Your task to perform on an android device: open app "Upside-Cash back on gas & food" (install if not already installed) Image 0: 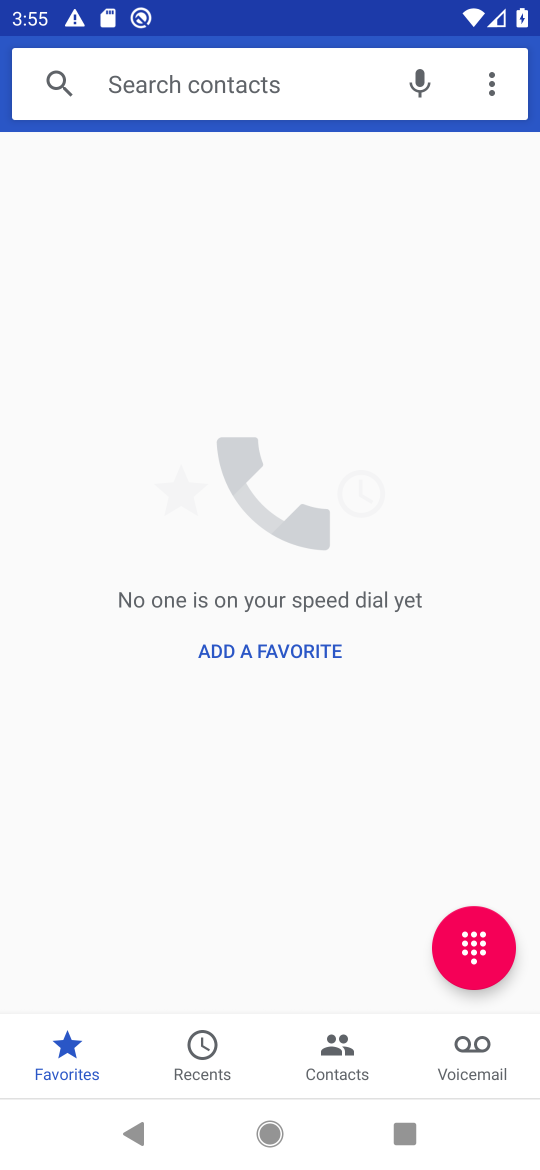
Step 0: press back button
Your task to perform on an android device: open app "Upside-Cash back on gas & food" (install if not already installed) Image 1: 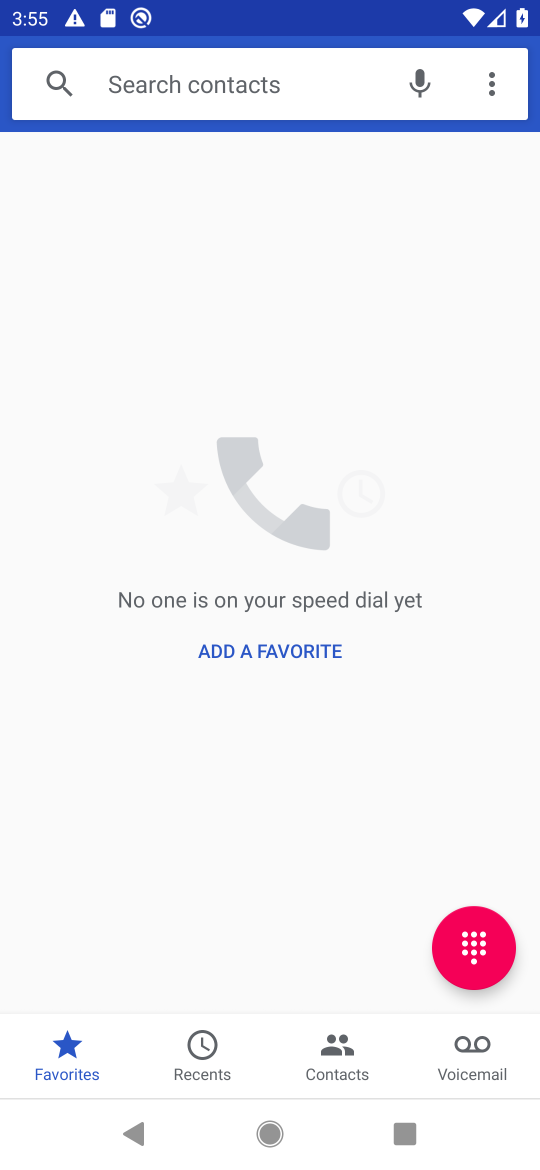
Step 1: press back button
Your task to perform on an android device: open app "Upside-Cash back on gas & food" (install if not already installed) Image 2: 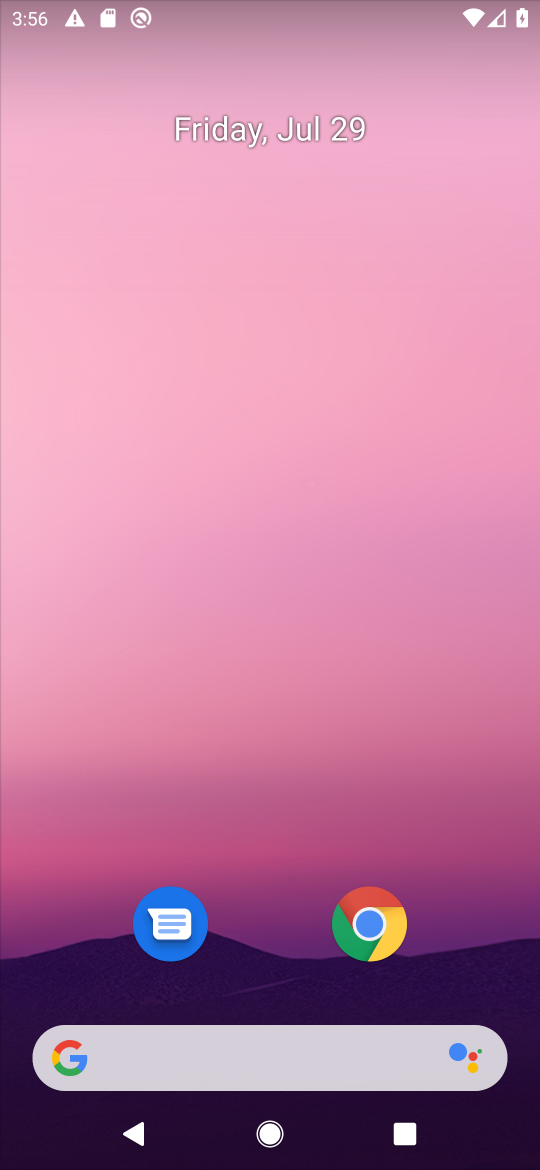
Step 2: press home button
Your task to perform on an android device: open app "Upside-Cash back on gas & food" (install if not already installed) Image 3: 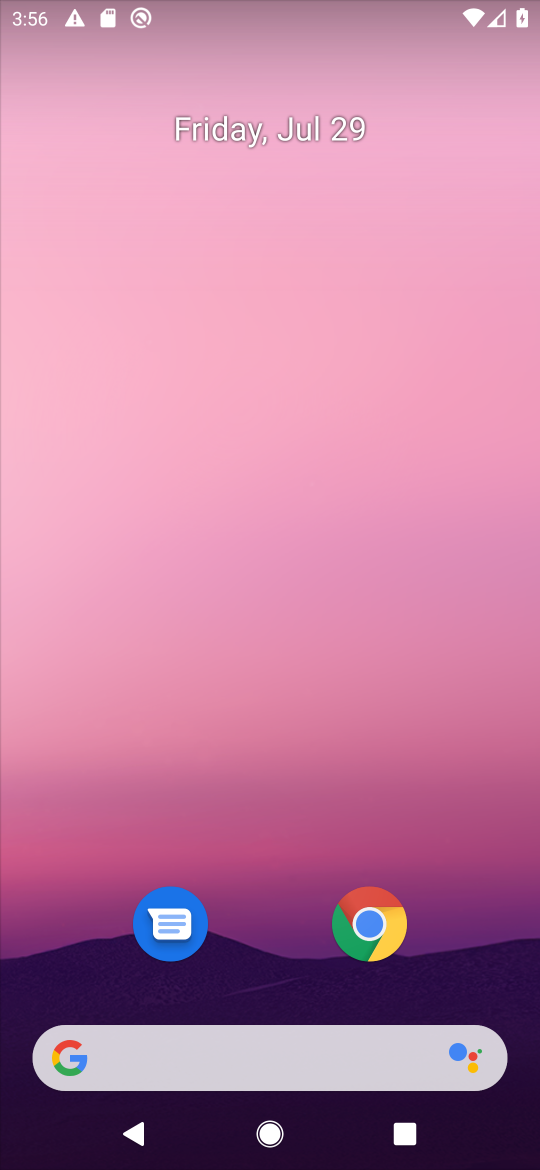
Step 3: drag from (273, 547) to (233, 106)
Your task to perform on an android device: open app "Upside-Cash back on gas & food" (install if not already installed) Image 4: 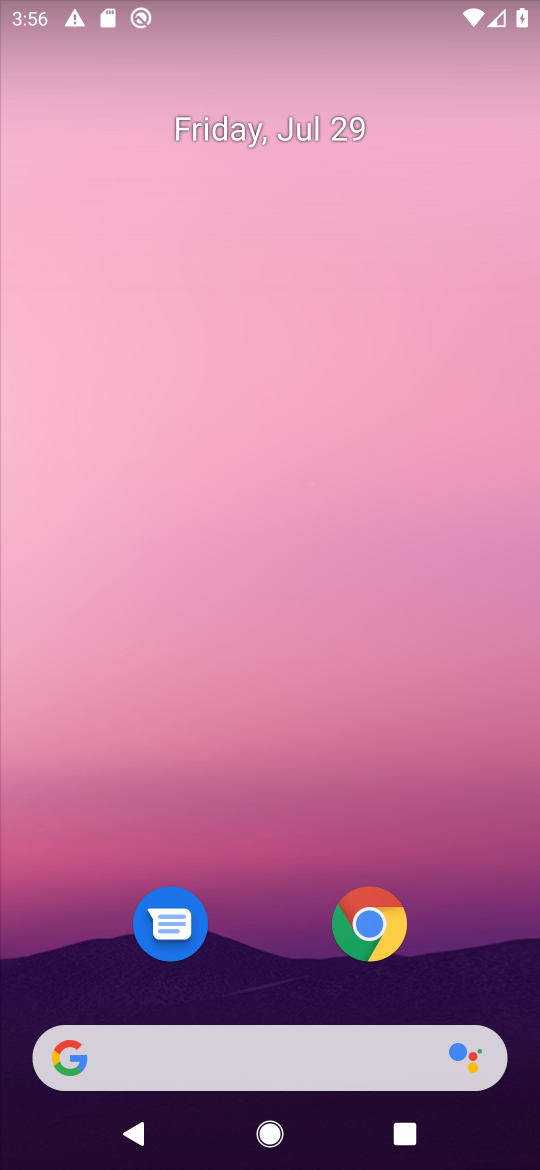
Step 4: drag from (236, 304) to (274, 211)
Your task to perform on an android device: open app "Upside-Cash back on gas & food" (install if not already installed) Image 5: 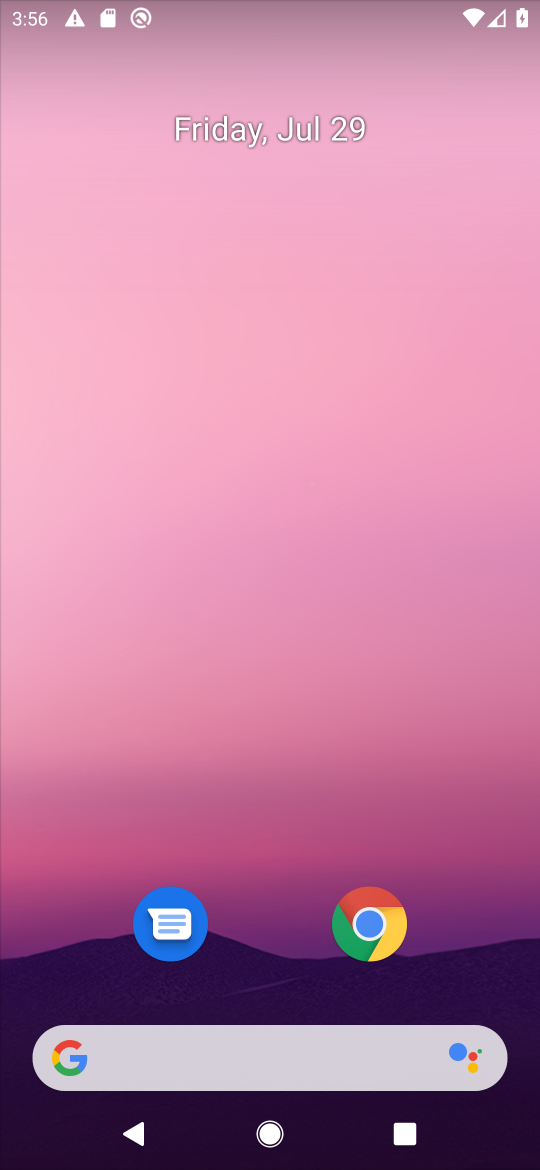
Step 5: drag from (199, 106) to (238, 62)
Your task to perform on an android device: open app "Upside-Cash back on gas & food" (install if not already installed) Image 6: 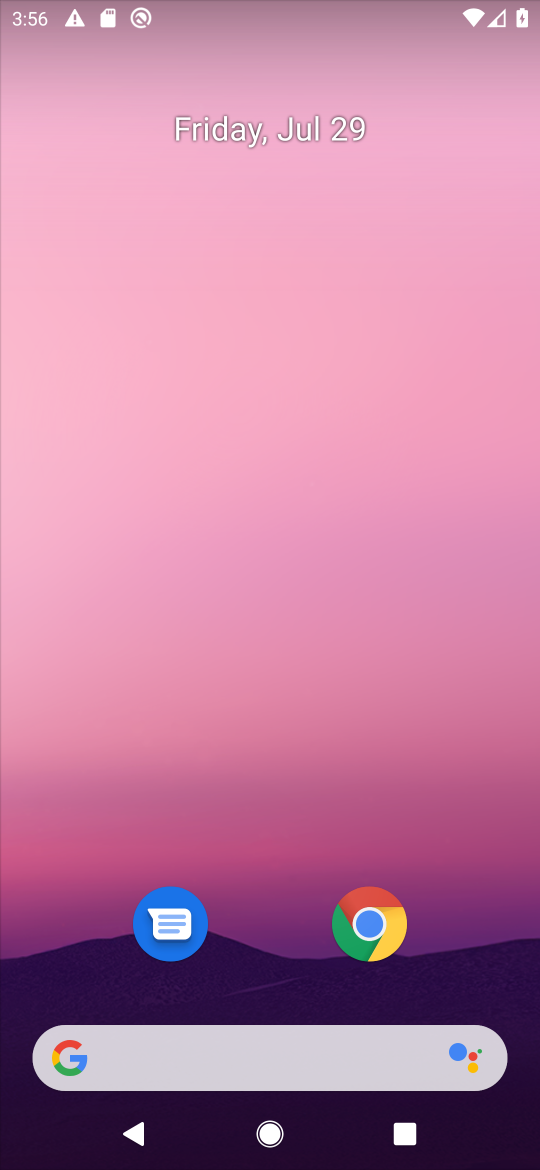
Step 6: drag from (186, 427) to (187, 201)
Your task to perform on an android device: open app "Upside-Cash back on gas & food" (install if not already installed) Image 7: 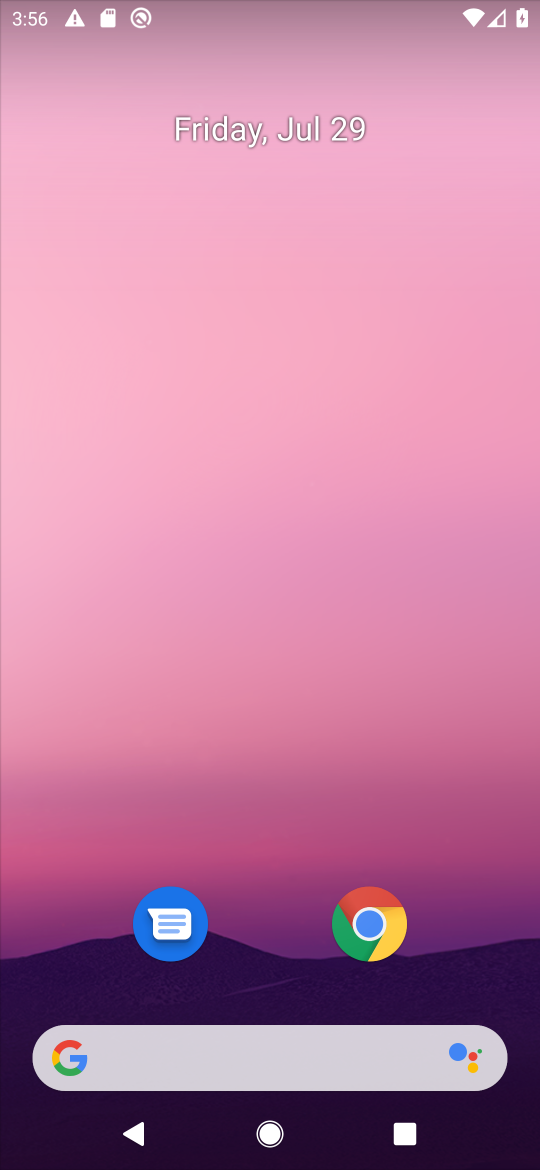
Step 7: click (114, 104)
Your task to perform on an android device: open app "Upside-Cash back on gas & food" (install if not already installed) Image 8: 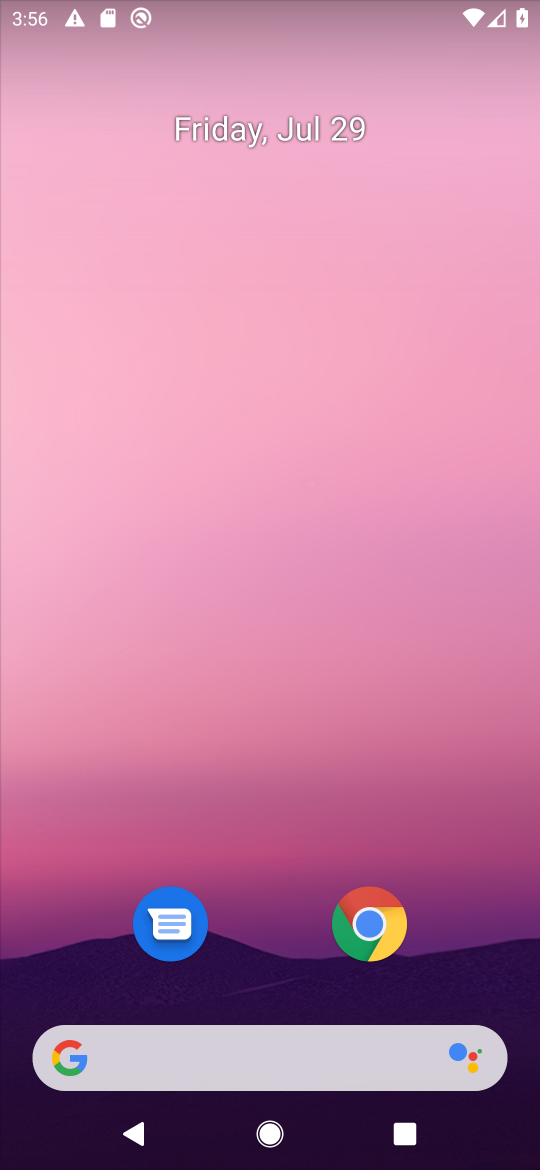
Step 8: drag from (235, 435) to (222, 274)
Your task to perform on an android device: open app "Upside-Cash back on gas & food" (install if not already installed) Image 9: 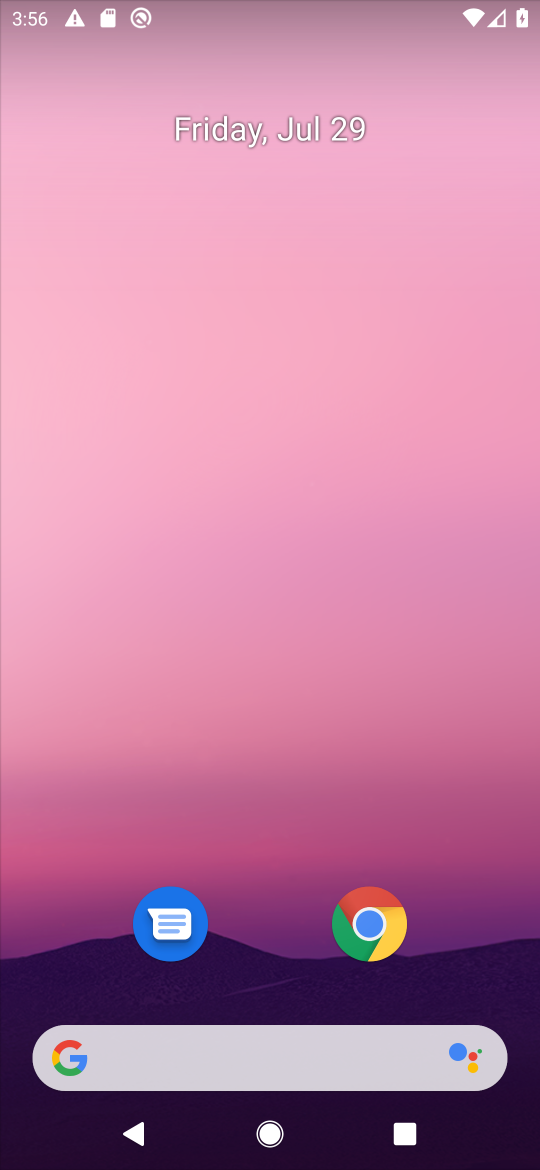
Step 9: drag from (316, 815) to (267, 161)
Your task to perform on an android device: open app "Upside-Cash back on gas & food" (install if not already installed) Image 10: 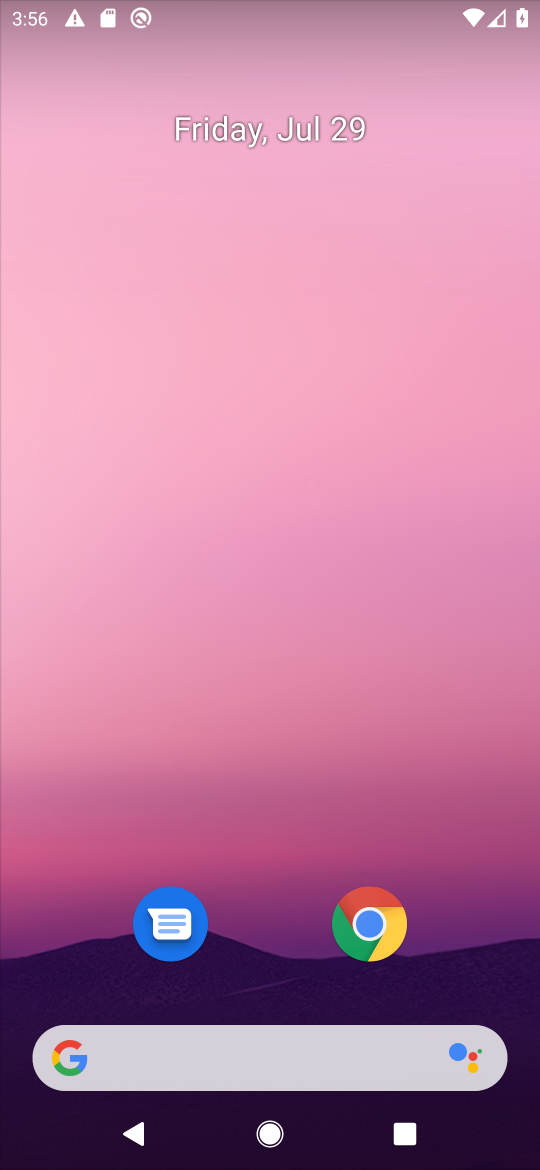
Step 10: drag from (351, 786) to (250, 17)
Your task to perform on an android device: open app "Upside-Cash back on gas & food" (install if not already installed) Image 11: 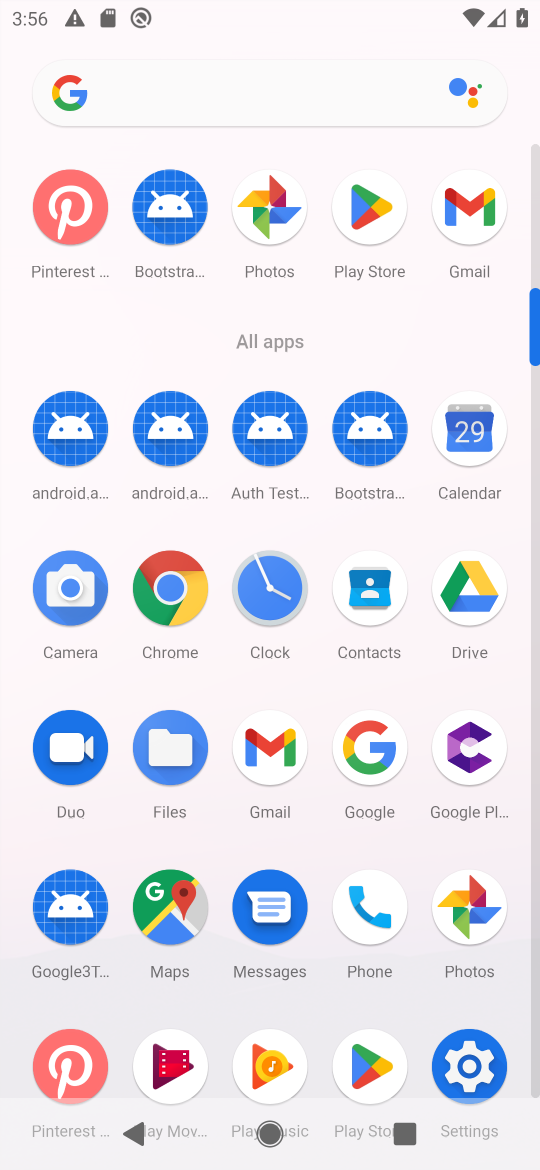
Step 11: click (360, 228)
Your task to perform on an android device: open app "Upside-Cash back on gas & food" (install if not already installed) Image 12: 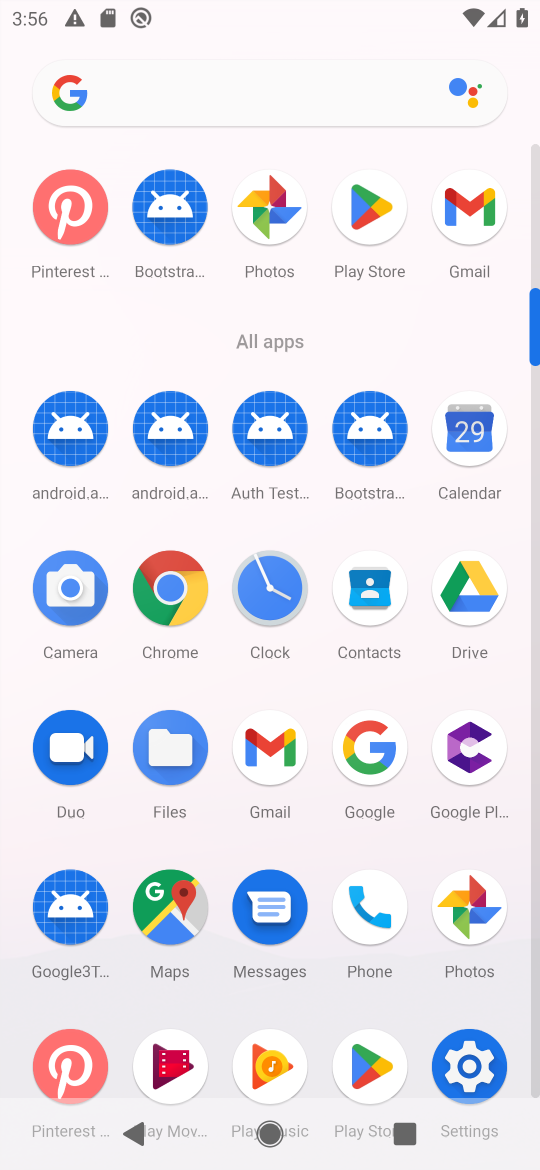
Step 12: click (360, 224)
Your task to perform on an android device: open app "Upside-Cash back on gas & food" (install if not already installed) Image 13: 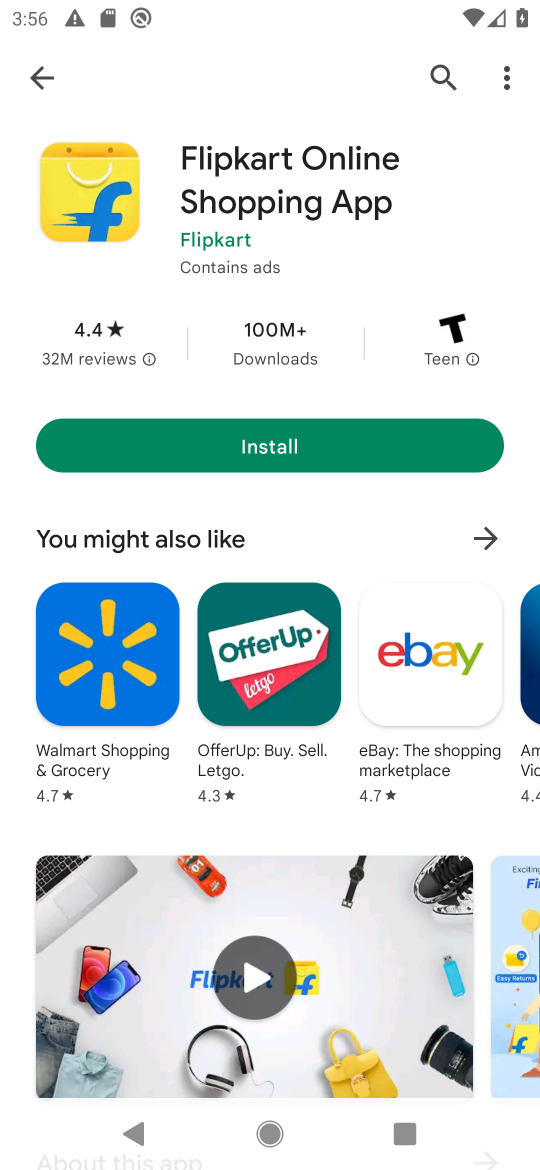
Step 13: click (38, 71)
Your task to perform on an android device: open app "Upside-Cash back on gas & food" (install if not already installed) Image 14: 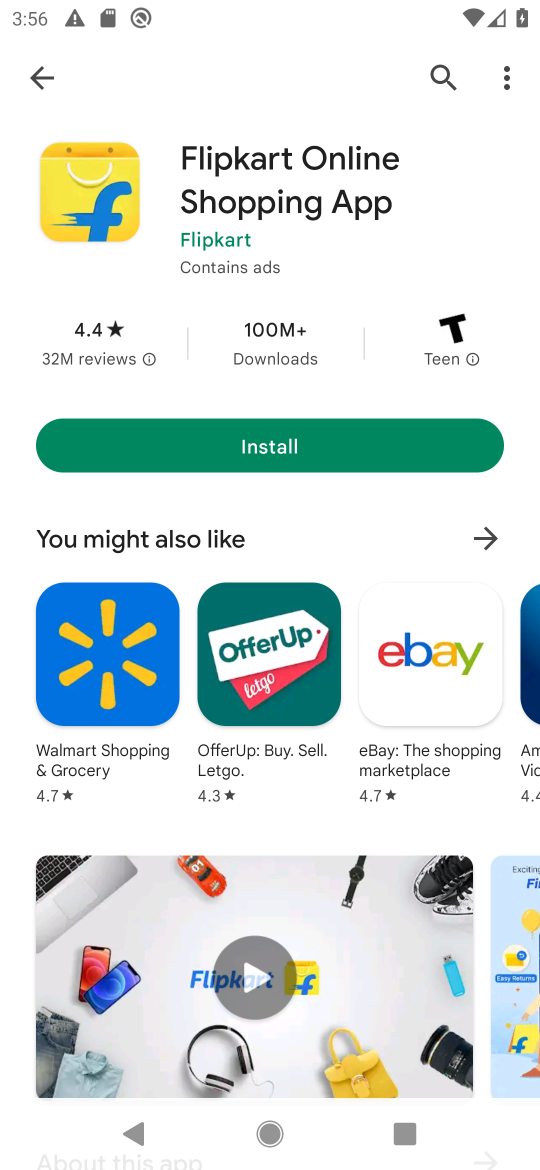
Step 14: click (44, 74)
Your task to perform on an android device: open app "Upside-Cash back on gas & food" (install if not already installed) Image 15: 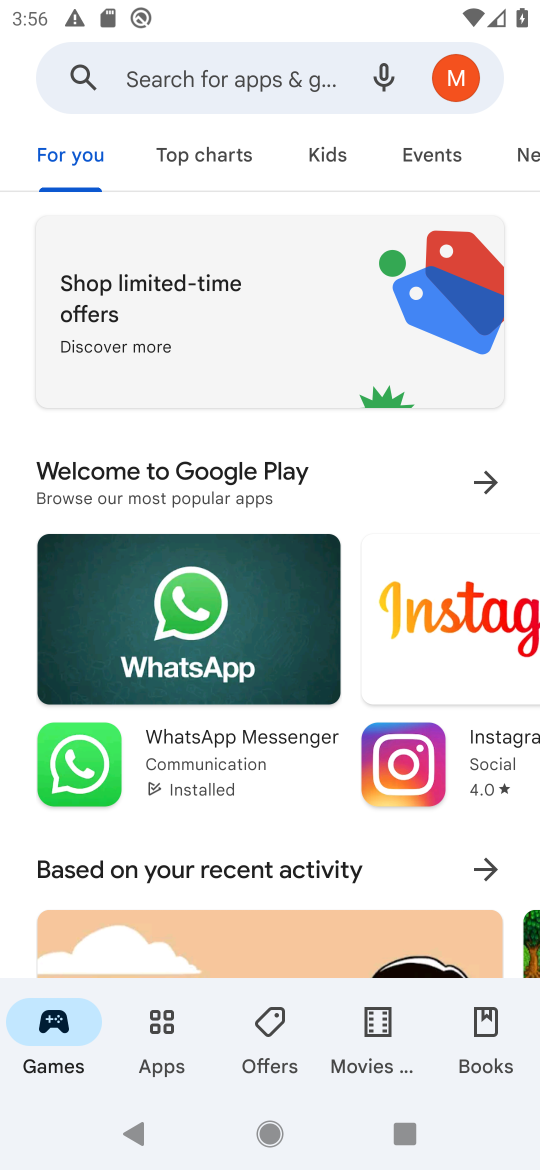
Step 15: click (162, 76)
Your task to perform on an android device: open app "Upside-Cash back on gas & food" (install if not already installed) Image 16: 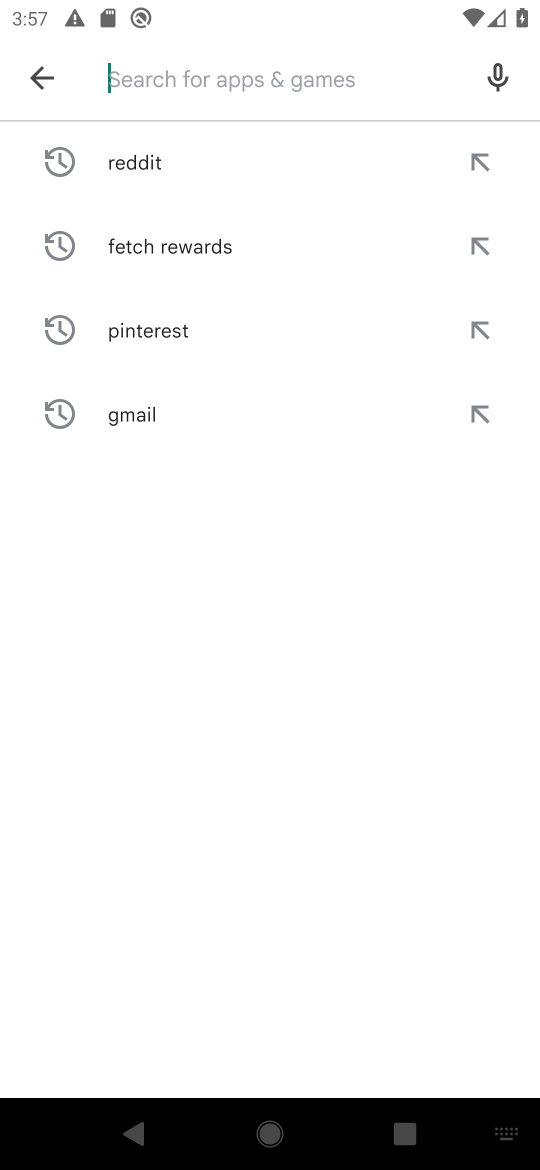
Step 16: type "Upside - Cash back on gas & Food"
Your task to perform on an android device: open app "Upside-Cash back on gas & food" (install if not already installed) Image 17: 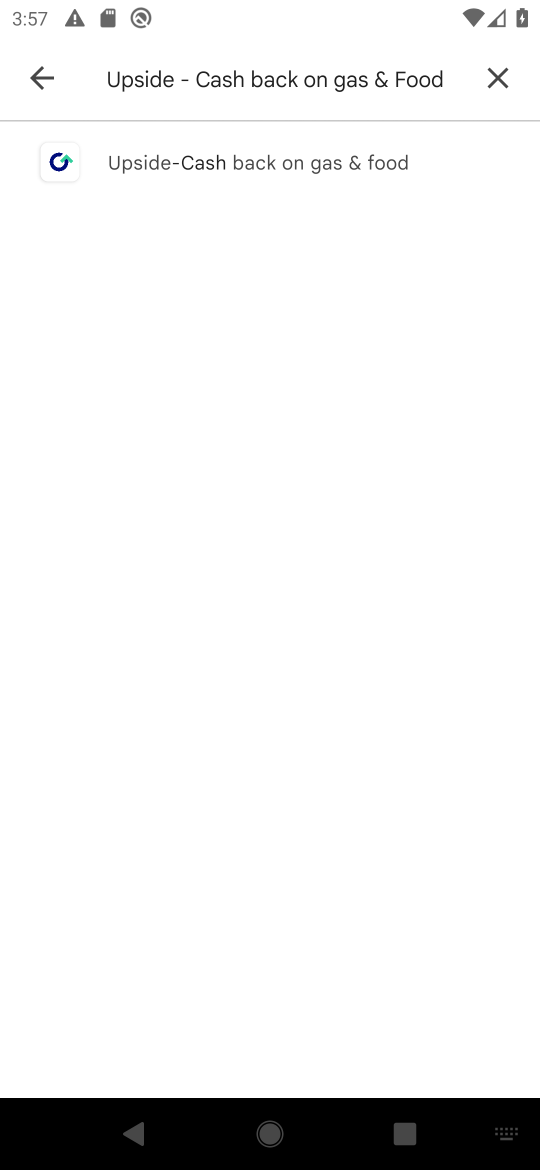
Step 17: click (234, 157)
Your task to perform on an android device: open app "Upside-Cash back on gas & food" (install if not already installed) Image 18: 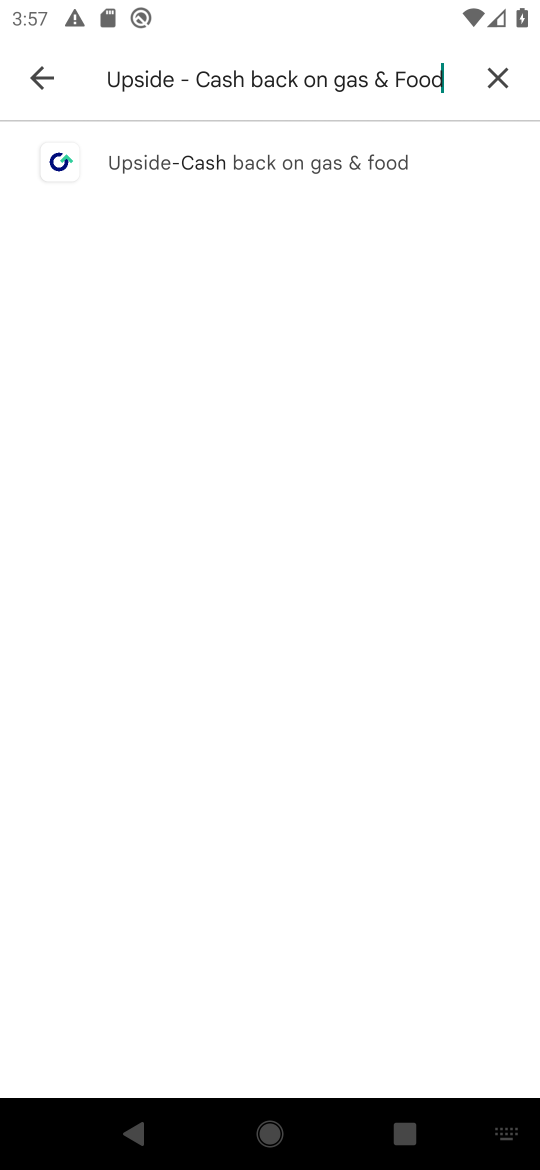
Step 18: click (237, 162)
Your task to perform on an android device: open app "Upside-Cash back on gas & food" (install if not already installed) Image 19: 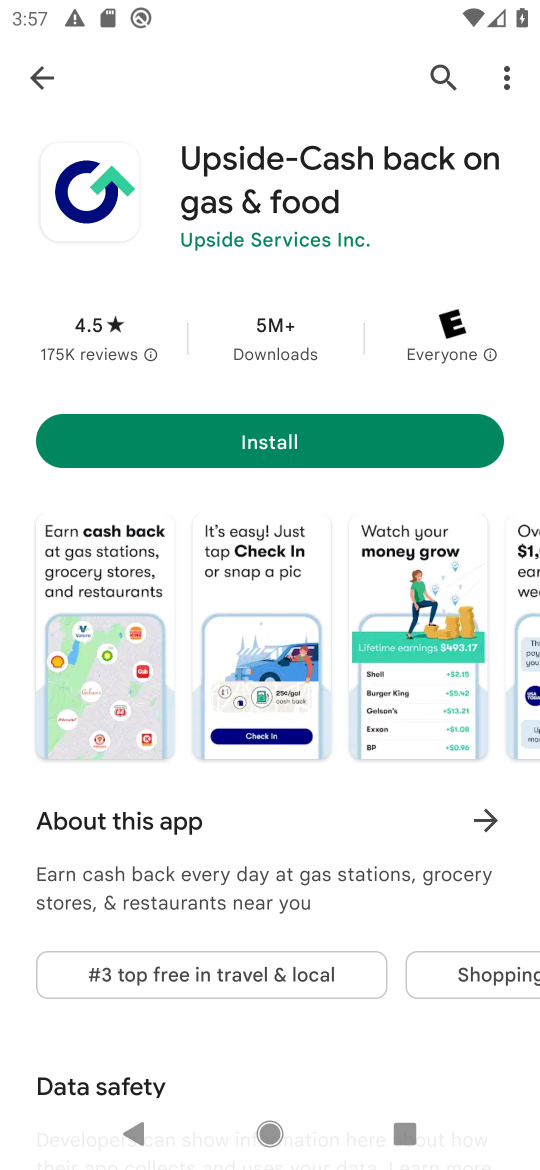
Step 19: click (275, 459)
Your task to perform on an android device: open app "Upside-Cash back on gas & food" (install if not already installed) Image 20: 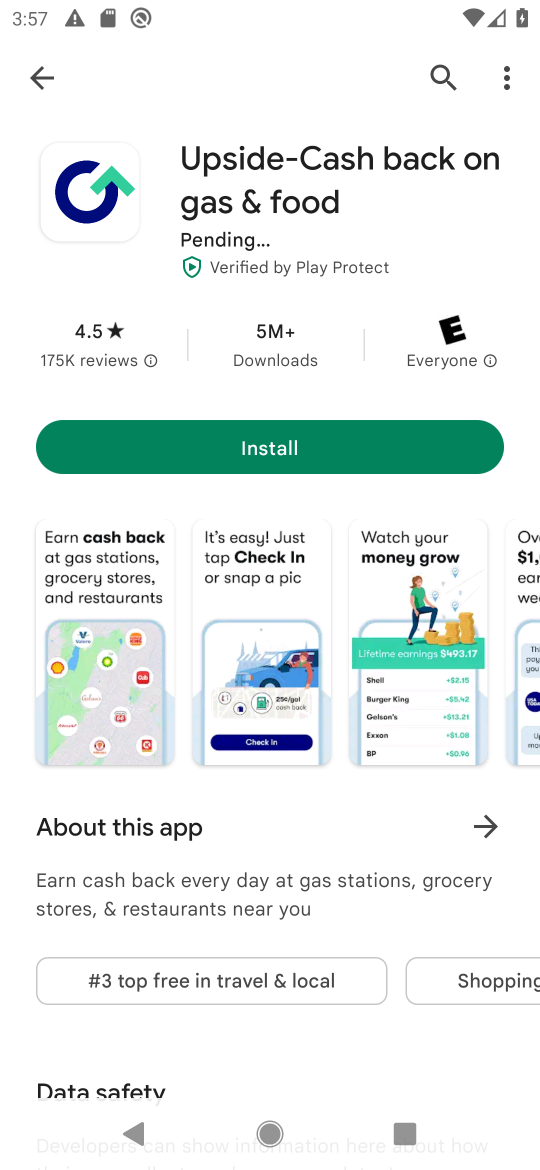
Step 20: click (266, 453)
Your task to perform on an android device: open app "Upside-Cash back on gas & food" (install if not already installed) Image 21: 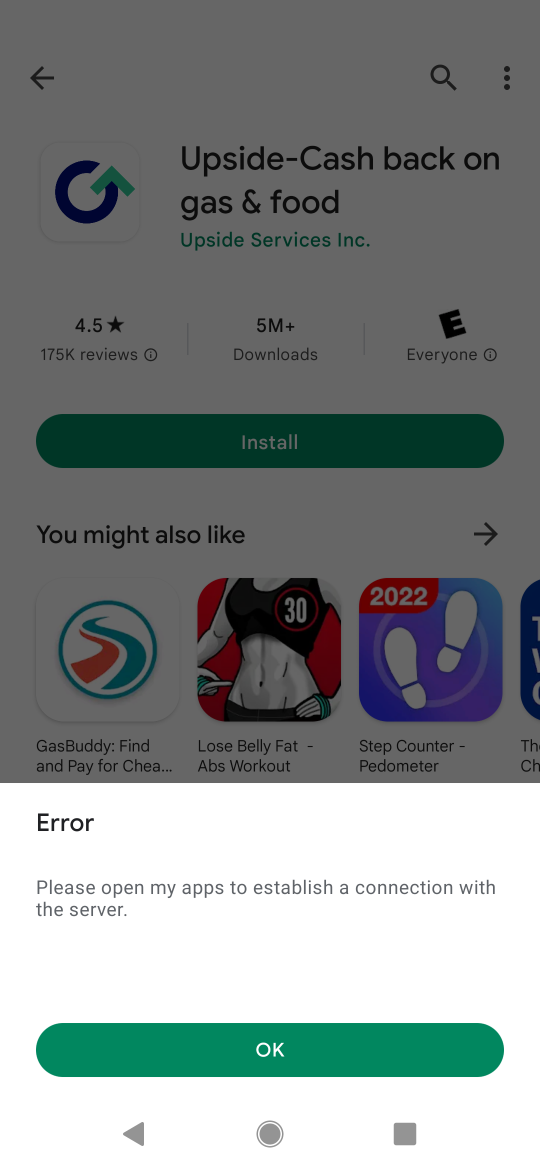
Step 21: click (277, 1053)
Your task to perform on an android device: open app "Upside-Cash back on gas & food" (install if not already installed) Image 22: 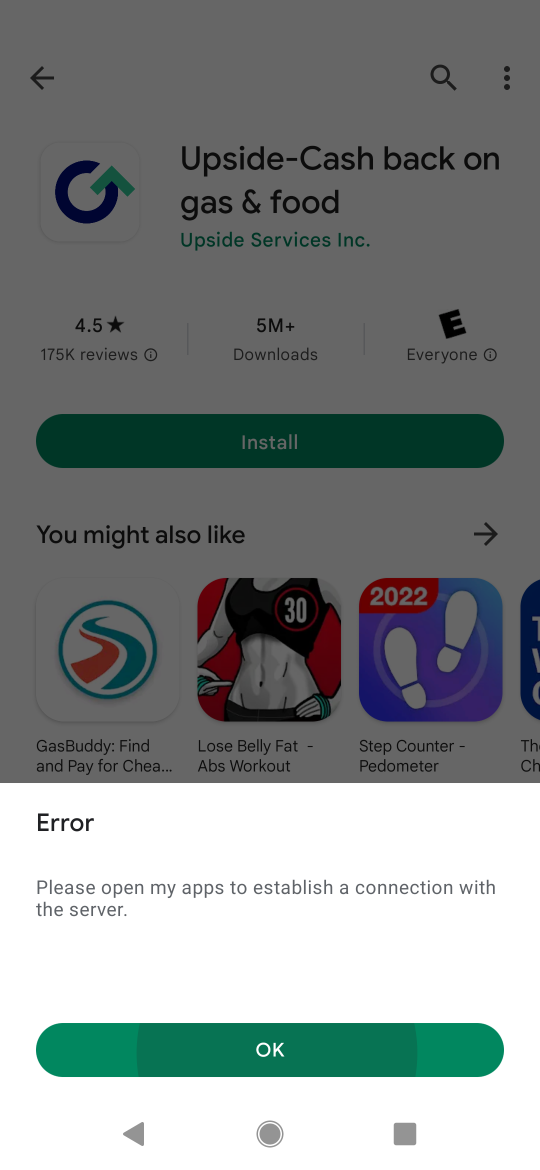
Step 22: click (277, 1053)
Your task to perform on an android device: open app "Upside-Cash back on gas & food" (install if not already installed) Image 23: 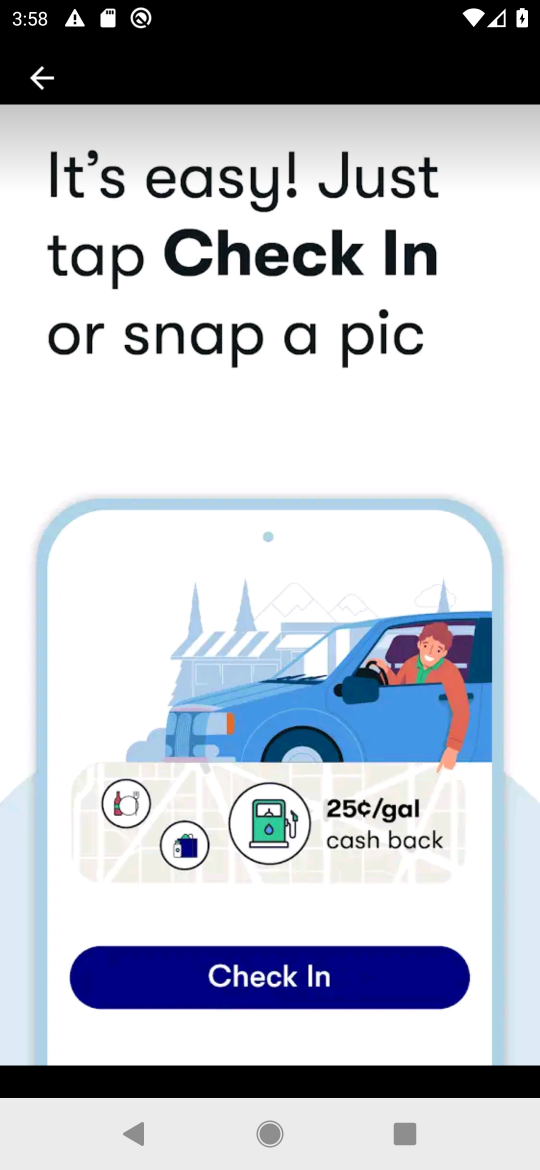
Step 23: click (303, 434)
Your task to perform on an android device: open app "Upside-Cash back on gas & food" (install if not already installed) Image 24: 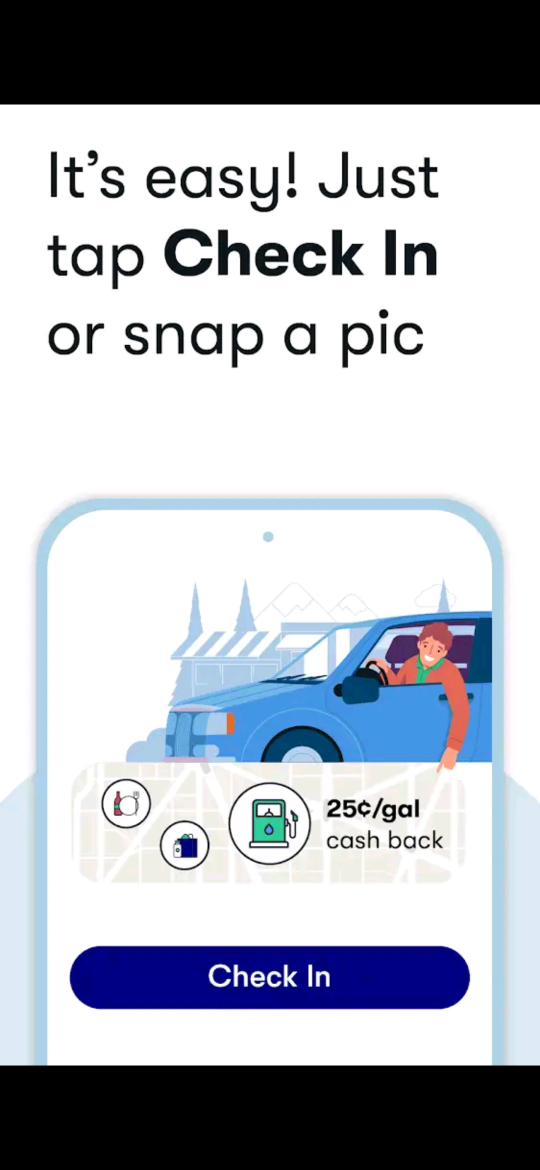
Step 24: task complete